Your task to perform on an android device: turn off location history Image 0: 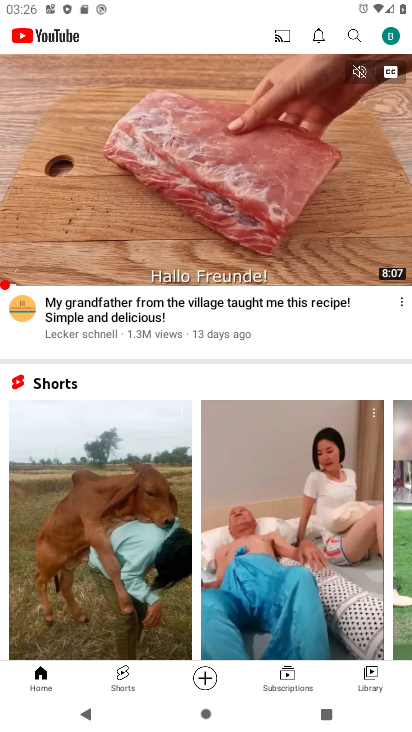
Step 0: press home button
Your task to perform on an android device: turn off location history Image 1: 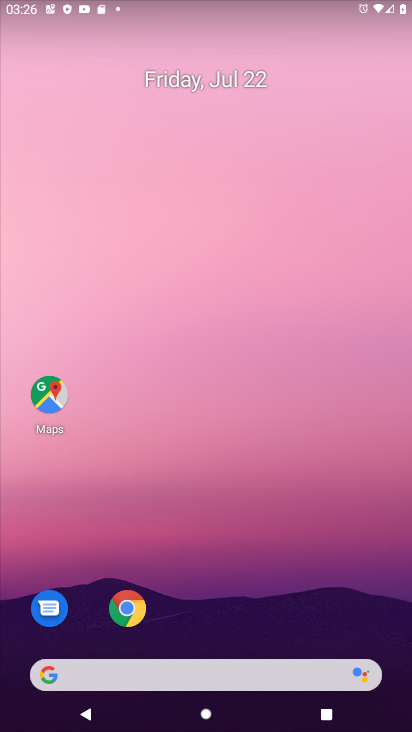
Step 1: drag from (256, 527) to (149, 85)
Your task to perform on an android device: turn off location history Image 2: 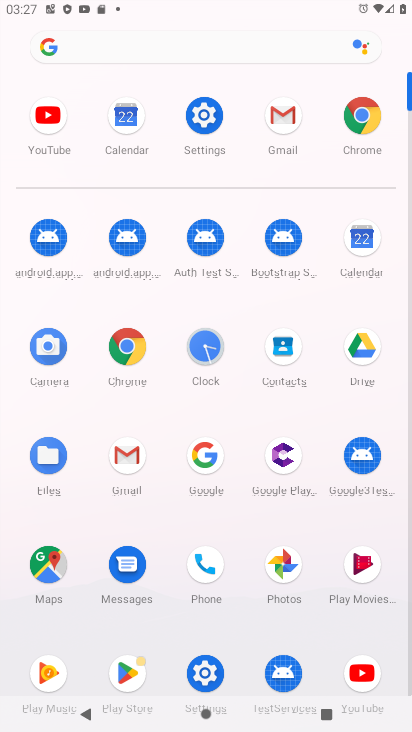
Step 2: click (197, 668)
Your task to perform on an android device: turn off location history Image 3: 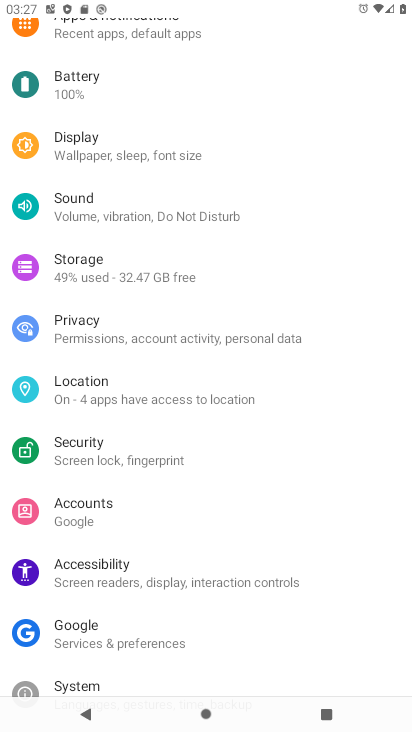
Step 3: click (158, 376)
Your task to perform on an android device: turn off location history Image 4: 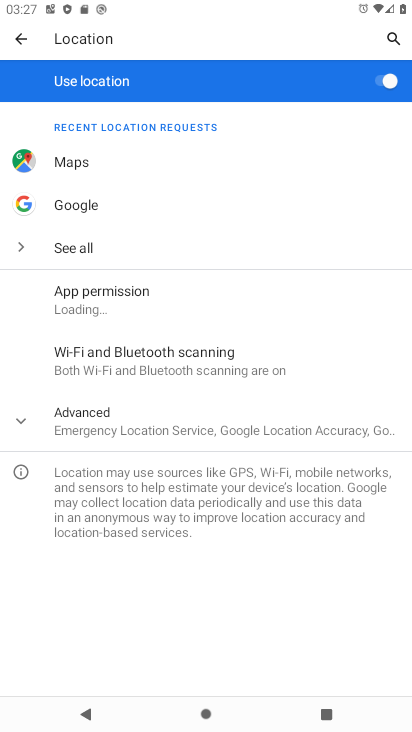
Step 4: click (164, 408)
Your task to perform on an android device: turn off location history Image 5: 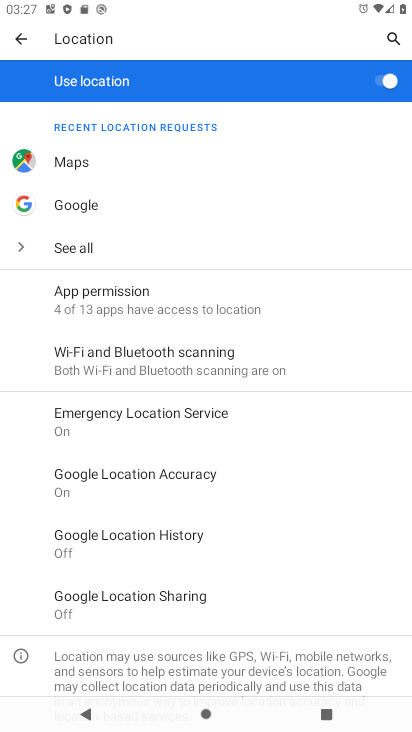
Step 5: click (171, 542)
Your task to perform on an android device: turn off location history Image 6: 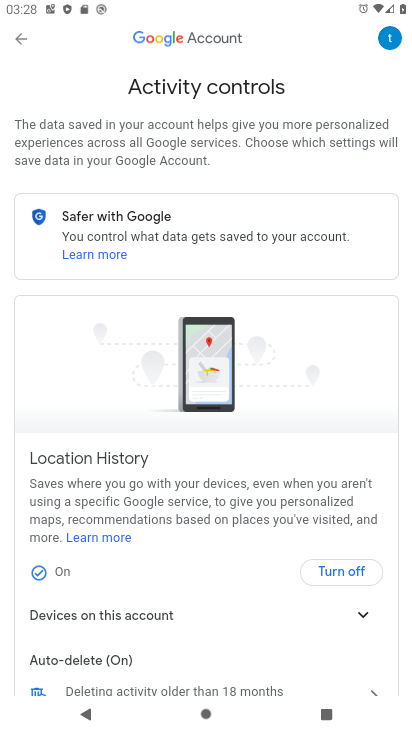
Step 6: click (348, 573)
Your task to perform on an android device: turn off location history Image 7: 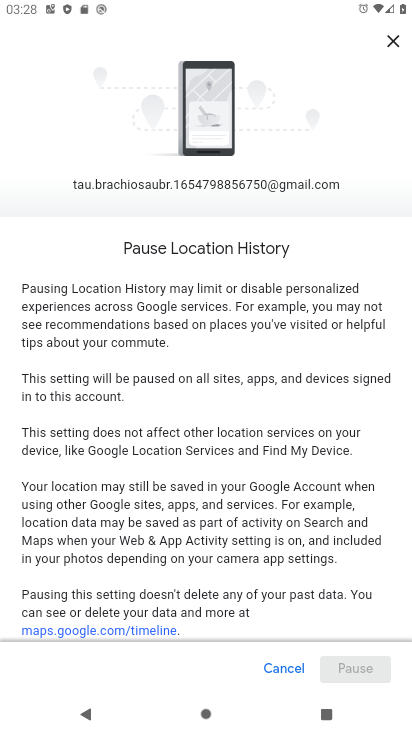
Step 7: drag from (372, 550) to (410, 323)
Your task to perform on an android device: turn off location history Image 8: 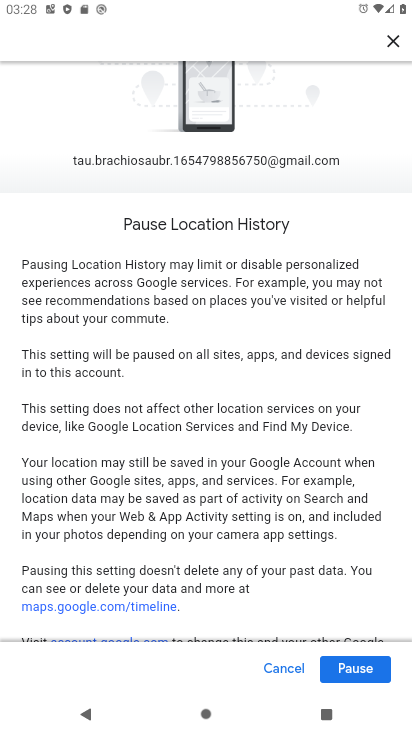
Step 8: click (340, 676)
Your task to perform on an android device: turn off location history Image 9: 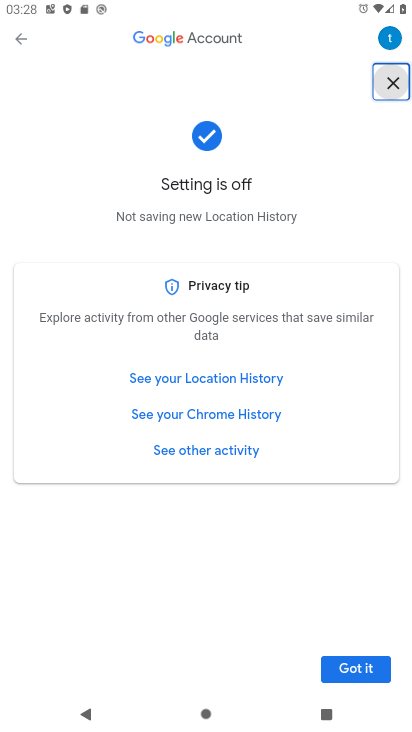
Step 9: click (340, 676)
Your task to perform on an android device: turn off location history Image 10: 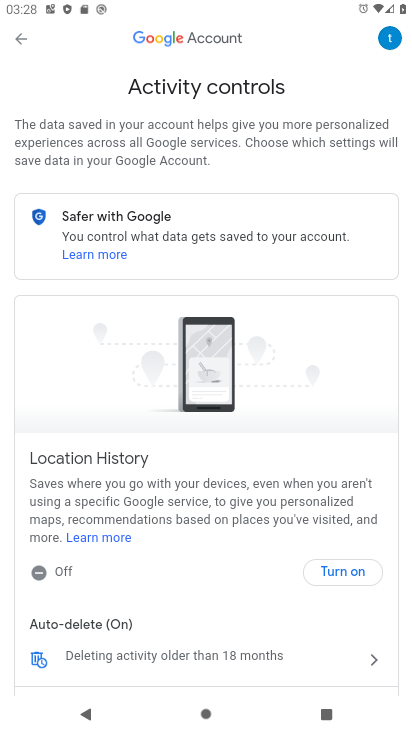
Step 10: task complete